Your task to perform on an android device: turn on priority inbox in the gmail app Image 0: 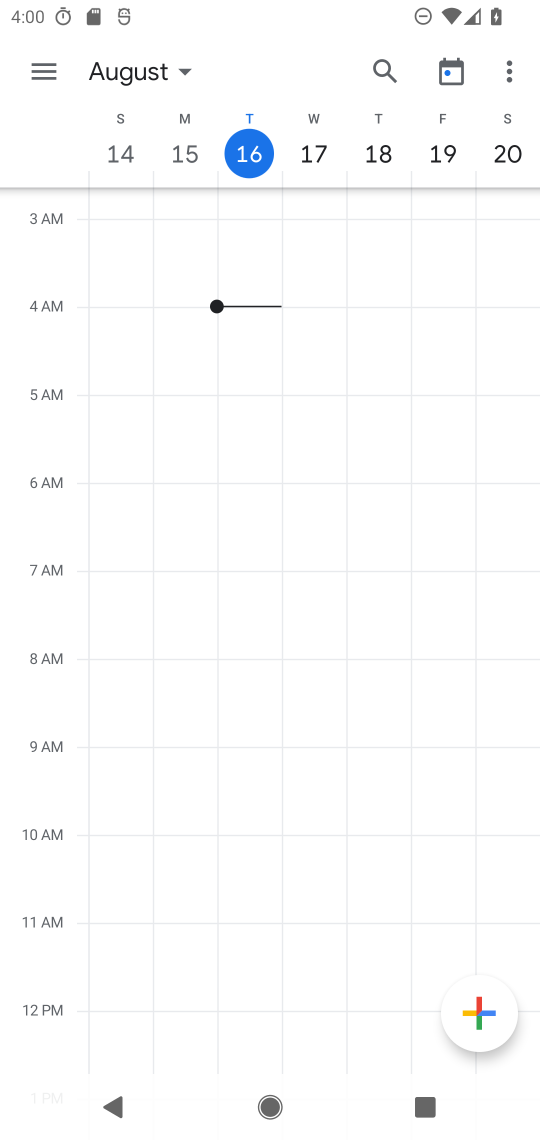
Step 0: press home button
Your task to perform on an android device: turn on priority inbox in the gmail app Image 1: 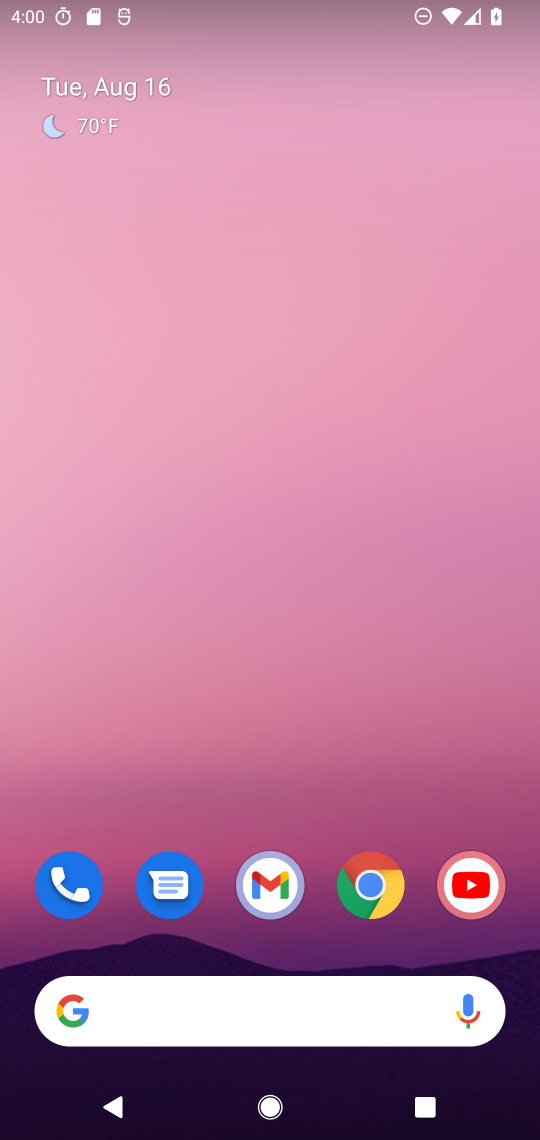
Step 1: drag from (292, 1010) to (285, 152)
Your task to perform on an android device: turn on priority inbox in the gmail app Image 2: 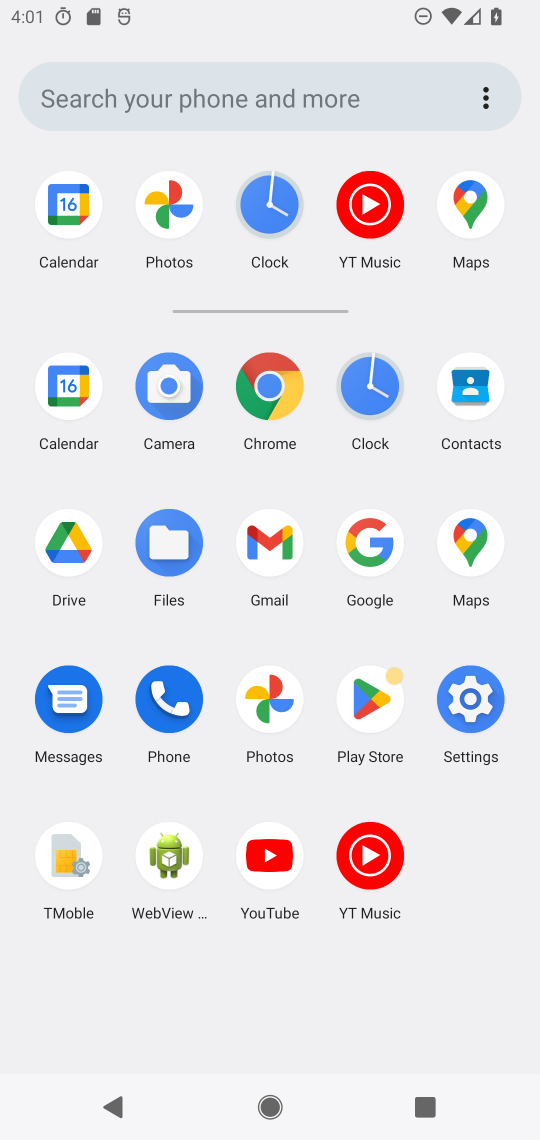
Step 2: click (269, 534)
Your task to perform on an android device: turn on priority inbox in the gmail app Image 3: 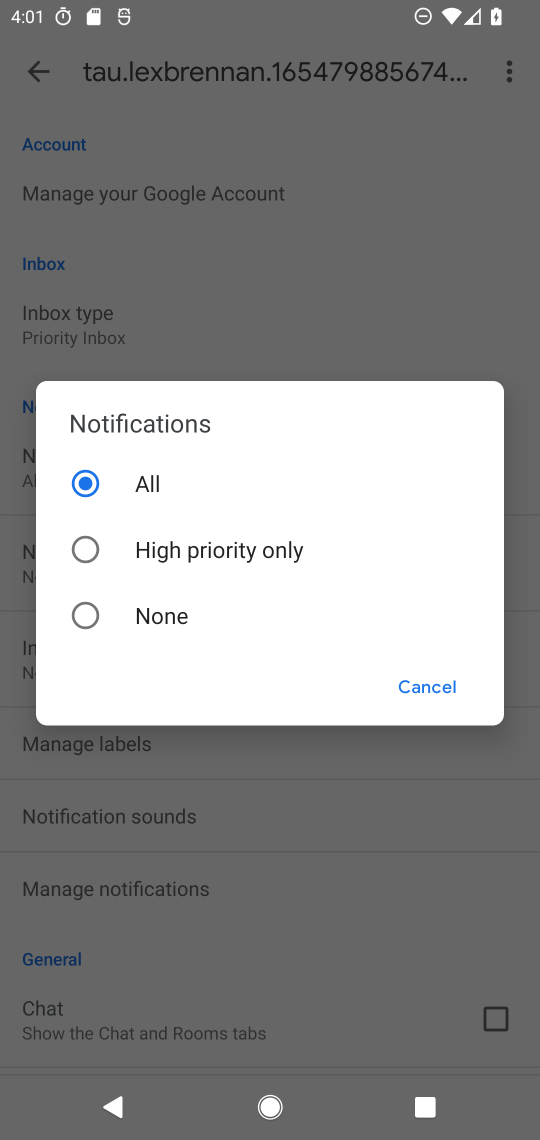
Step 3: click (192, 264)
Your task to perform on an android device: turn on priority inbox in the gmail app Image 4: 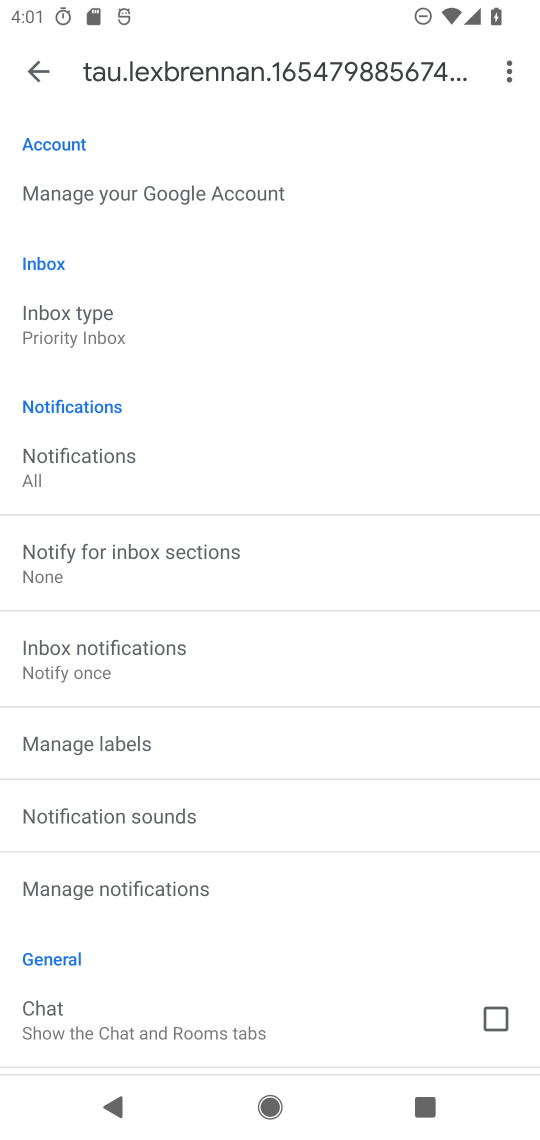
Step 4: click (91, 316)
Your task to perform on an android device: turn on priority inbox in the gmail app Image 5: 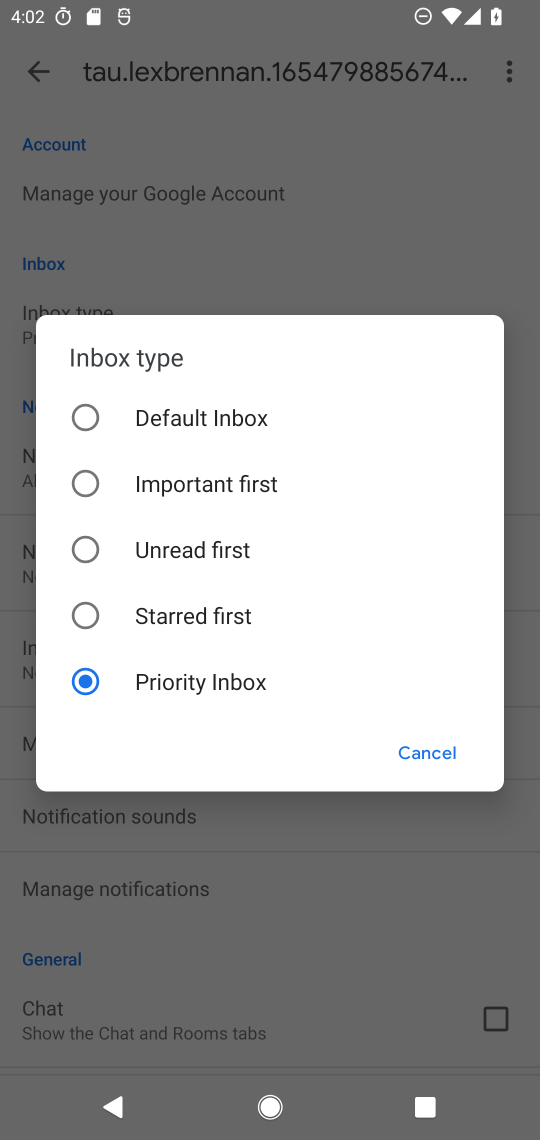
Step 5: task complete